Your task to perform on an android device: What is the news today? Image 0: 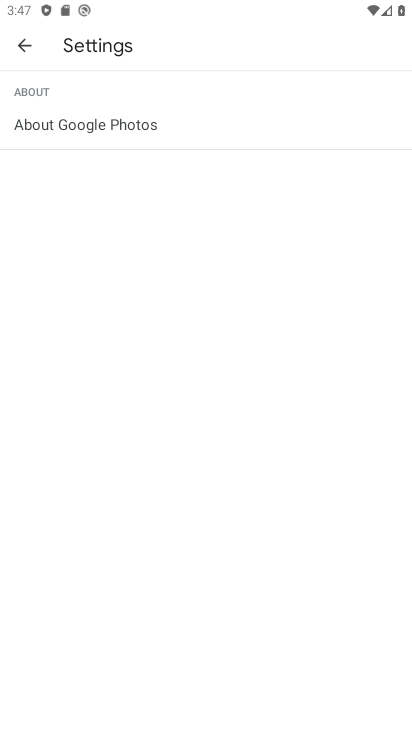
Step 0: press home button
Your task to perform on an android device: What is the news today? Image 1: 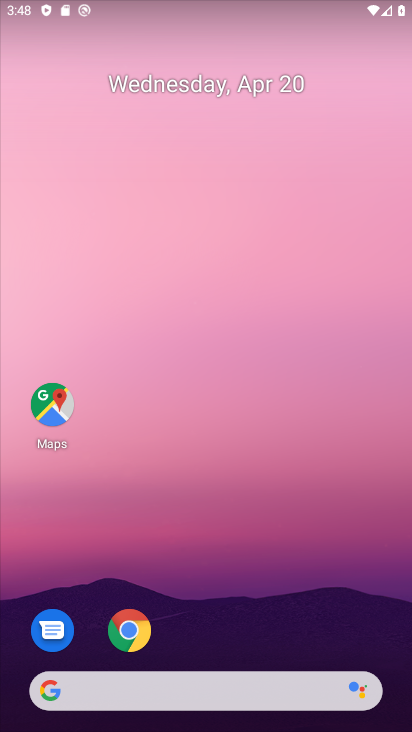
Step 1: drag from (275, 674) to (262, 41)
Your task to perform on an android device: What is the news today? Image 2: 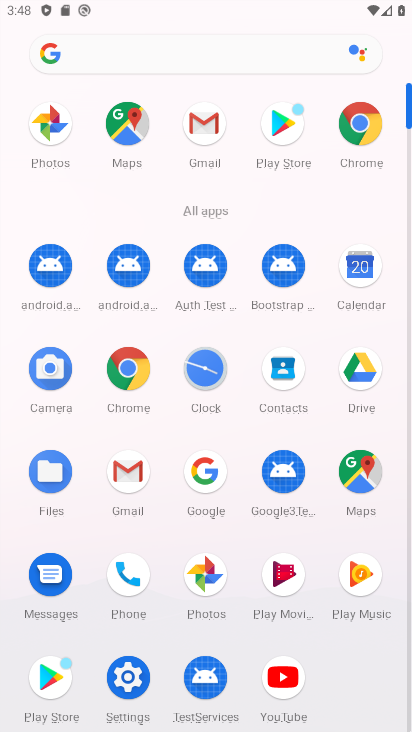
Step 2: drag from (328, 656) to (323, 175)
Your task to perform on an android device: What is the news today? Image 3: 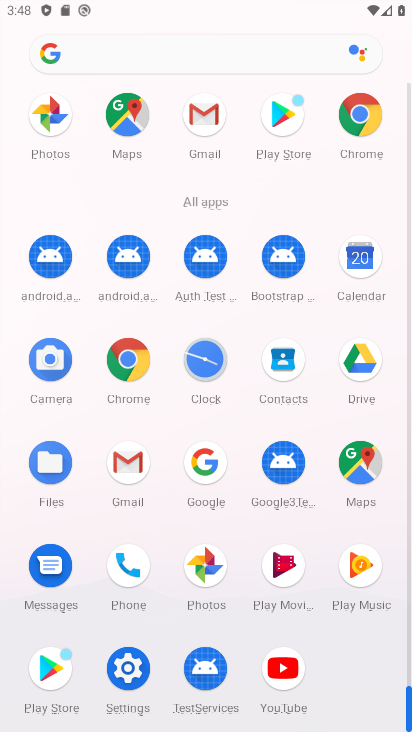
Step 3: click (140, 380)
Your task to perform on an android device: What is the news today? Image 4: 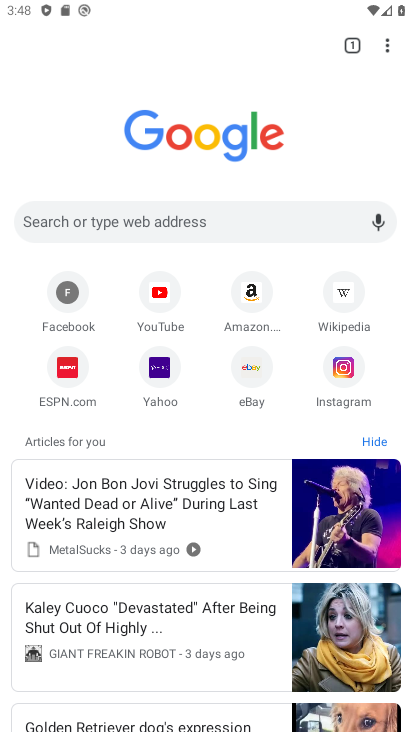
Step 4: click (287, 226)
Your task to perform on an android device: What is the news today? Image 5: 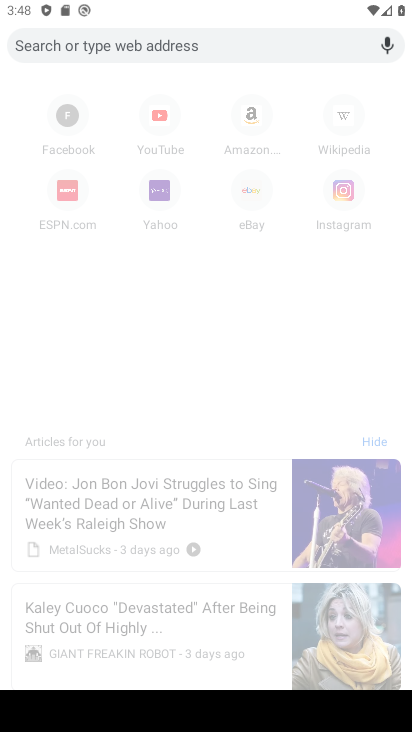
Step 5: type "news today"
Your task to perform on an android device: What is the news today? Image 6: 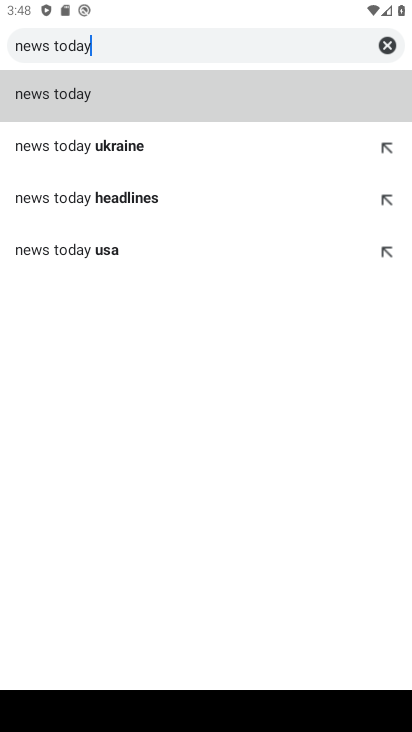
Step 6: click (89, 90)
Your task to perform on an android device: What is the news today? Image 7: 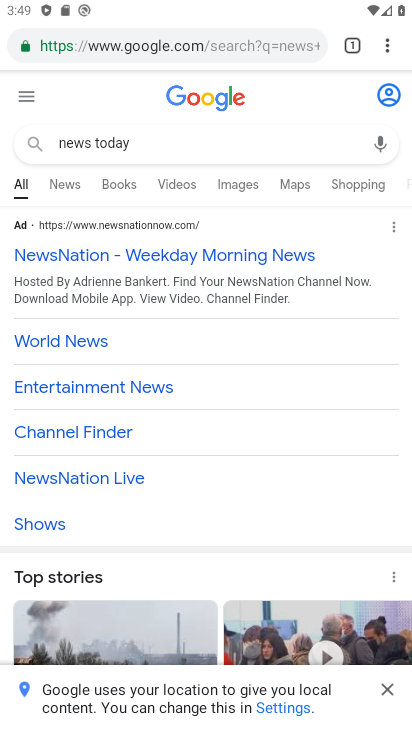
Step 7: task complete